Your task to perform on an android device: turn on showing notifications on the lock screen Image 0: 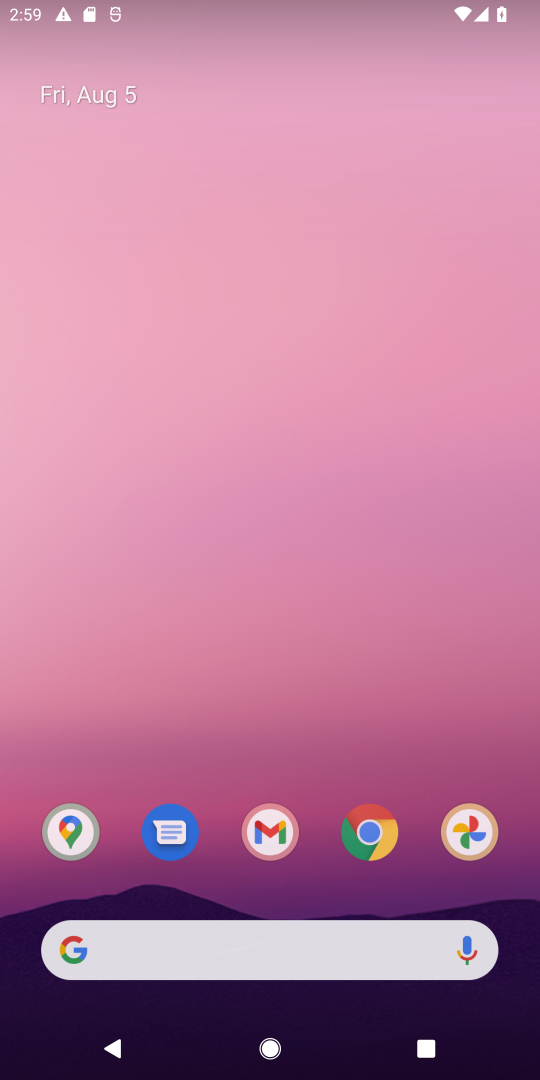
Step 0: press back button
Your task to perform on an android device: turn on showing notifications on the lock screen Image 1: 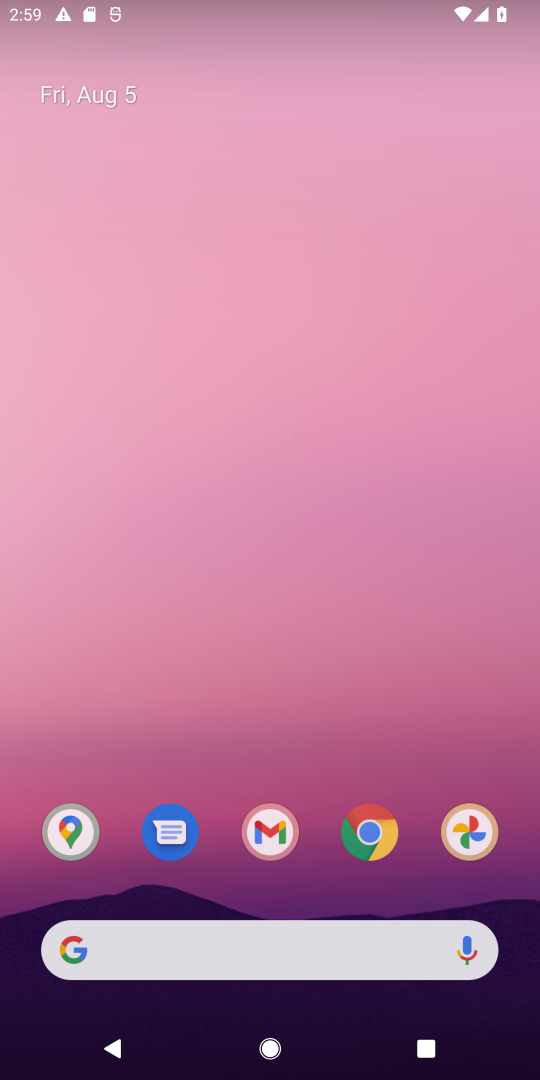
Step 1: press home button
Your task to perform on an android device: turn on showing notifications on the lock screen Image 2: 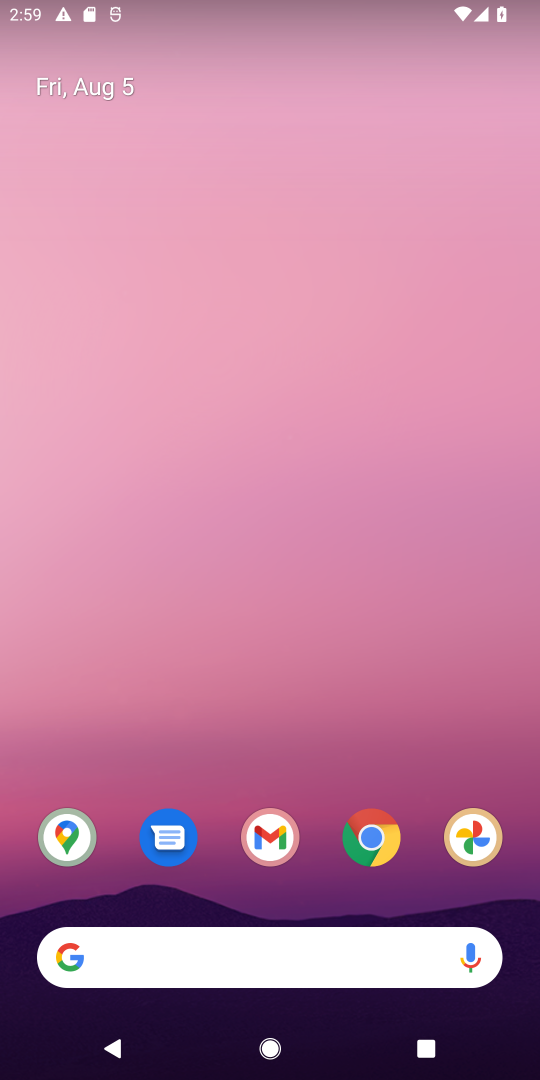
Step 2: click (349, 621)
Your task to perform on an android device: turn on showing notifications on the lock screen Image 3: 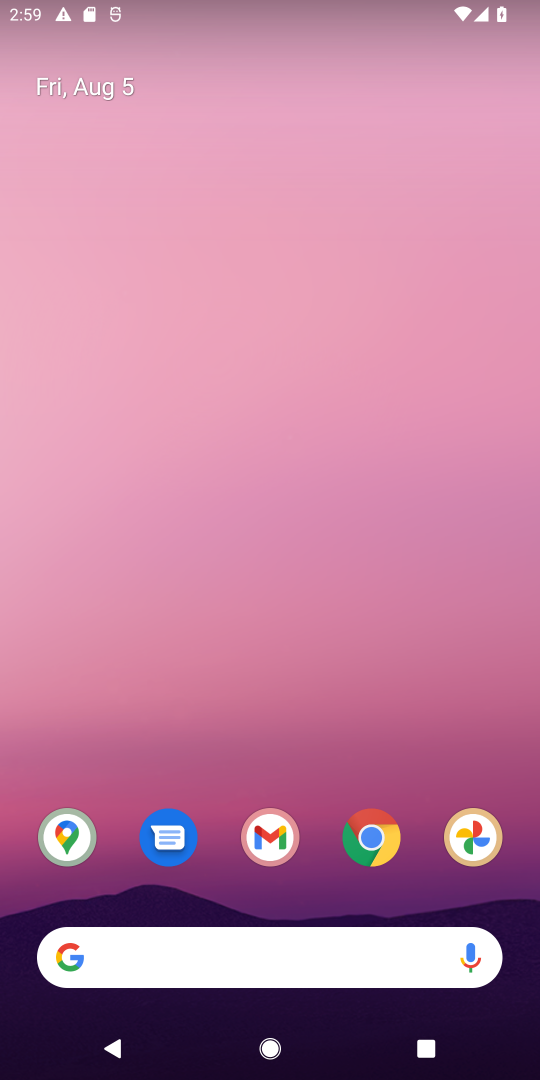
Step 3: drag from (291, 999) to (203, 275)
Your task to perform on an android device: turn on showing notifications on the lock screen Image 4: 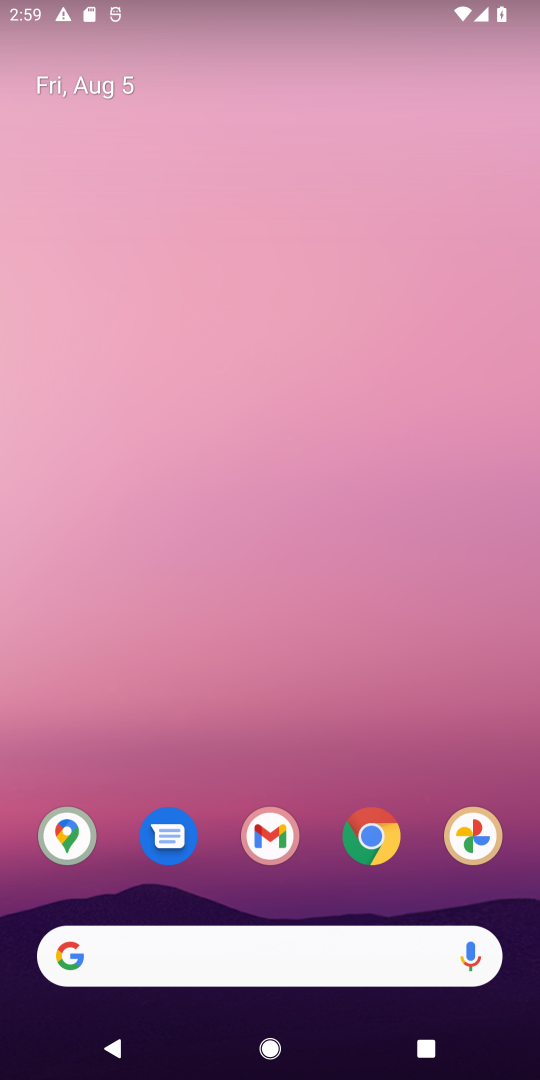
Step 4: drag from (269, 535) to (244, 383)
Your task to perform on an android device: turn on showing notifications on the lock screen Image 5: 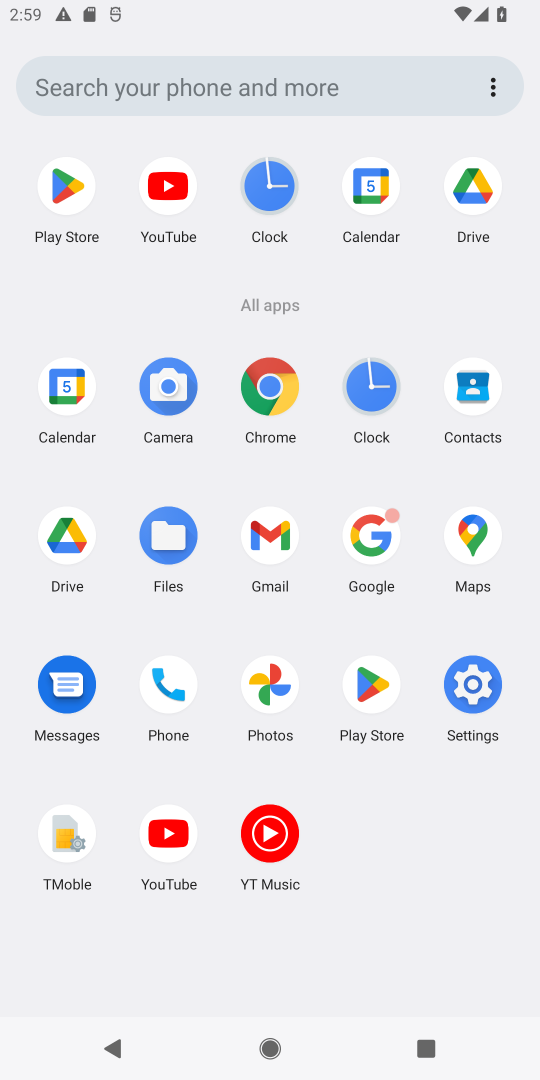
Step 5: click (467, 684)
Your task to perform on an android device: turn on showing notifications on the lock screen Image 6: 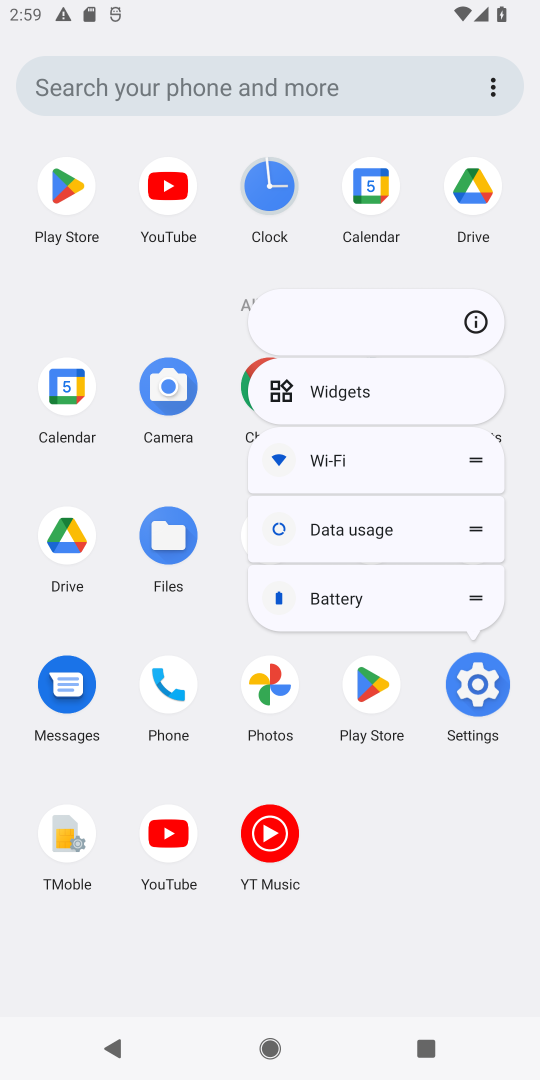
Step 6: click (473, 684)
Your task to perform on an android device: turn on showing notifications on the lock screen Image 7: 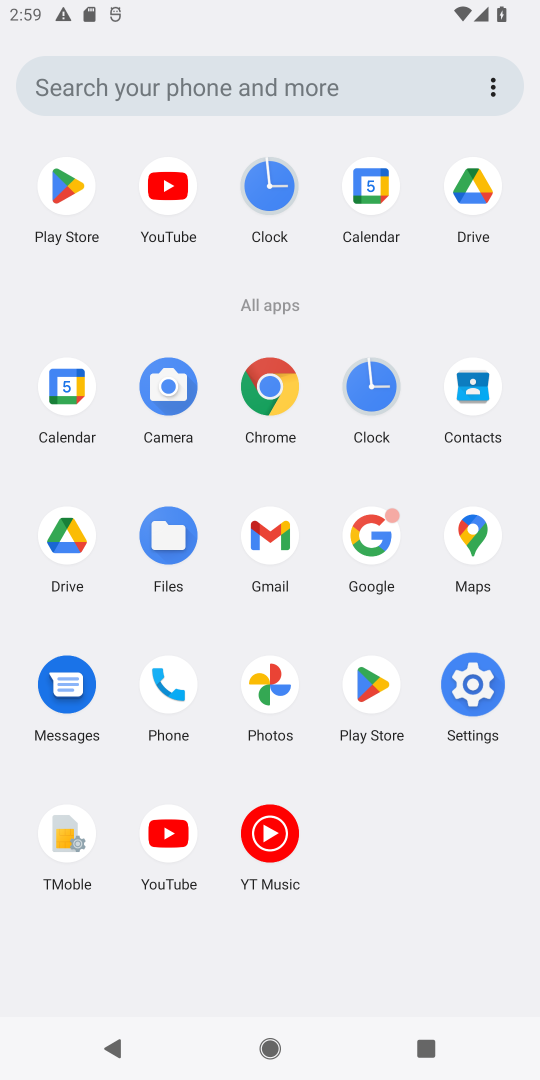
Step 7: click (470, 682)
Your task to perform on an android device: turn on showing notifications on the lock screen Image 8: 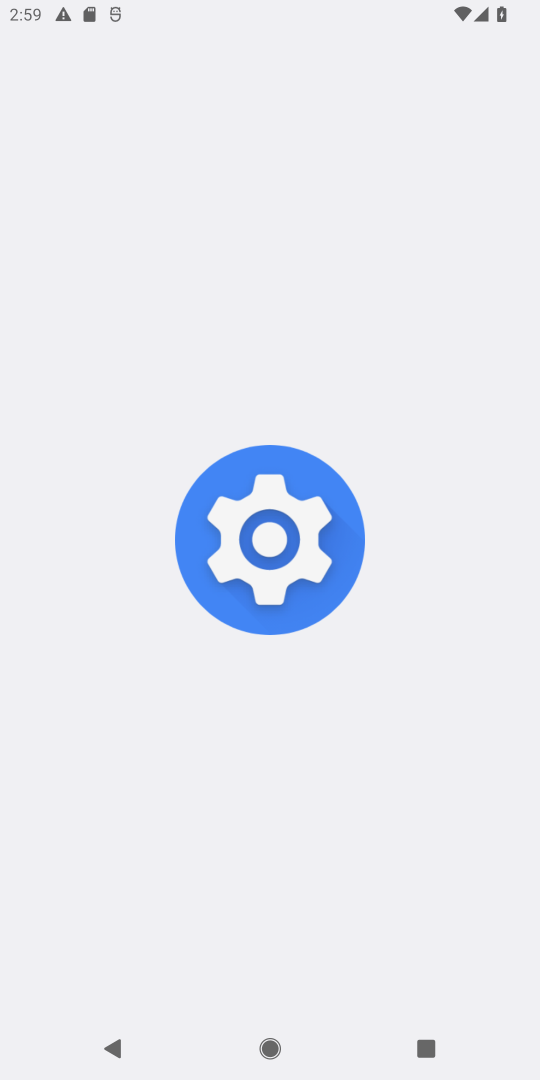
Step 8: click (455, 663)
Your task to perform on an android device: turn on showing notifications on the lock screen Image 9: 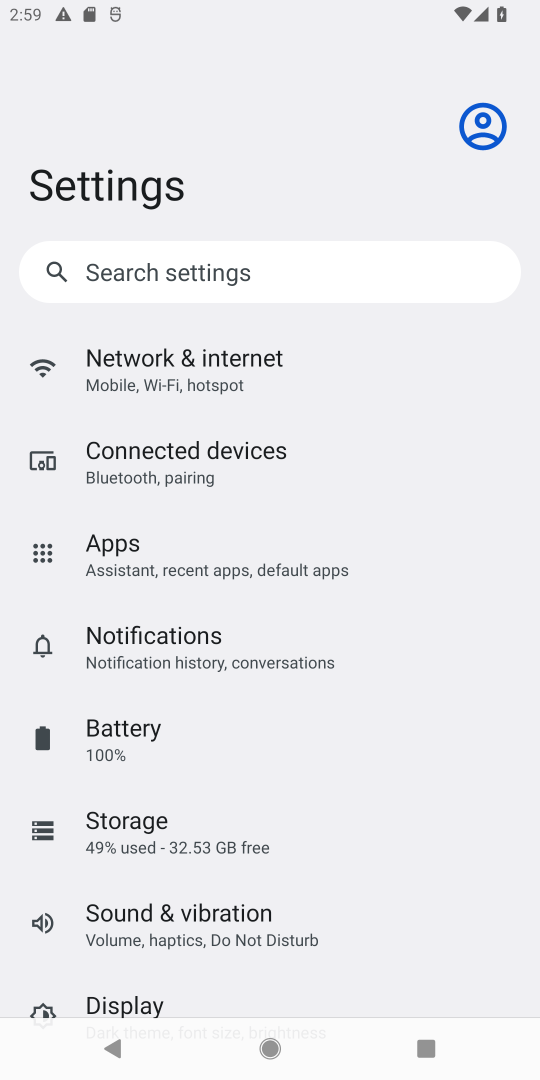
Step 9: drag from (231, 710) to (231, 324)
Your task to perform on an android device: turn on showing notifications on the lock screen Image 10: 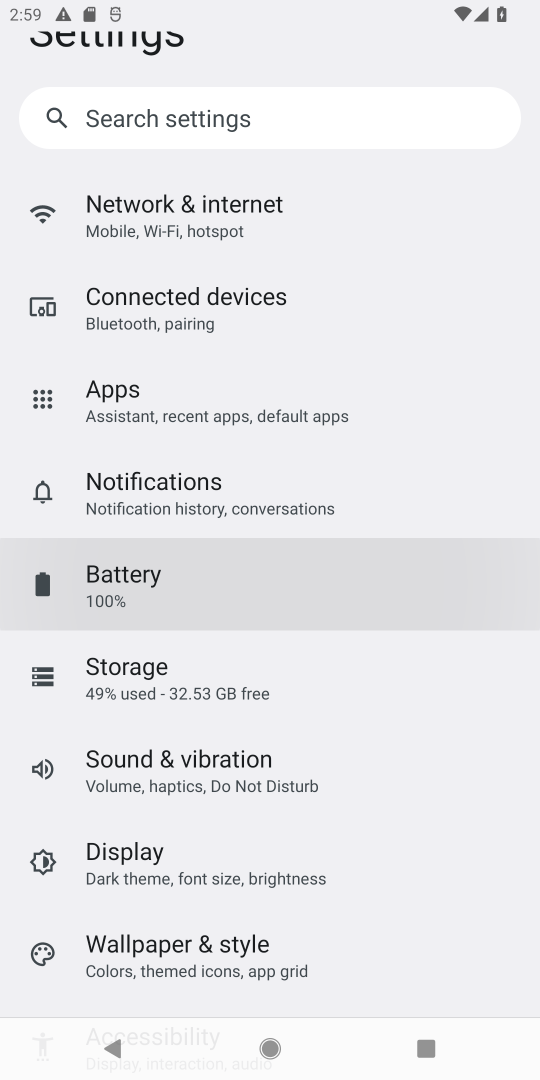
Step 10: drag from (279, 894) to (314, 282)
Your task to perform on an android device: turn on showing notifications on the lock screen Image 11: 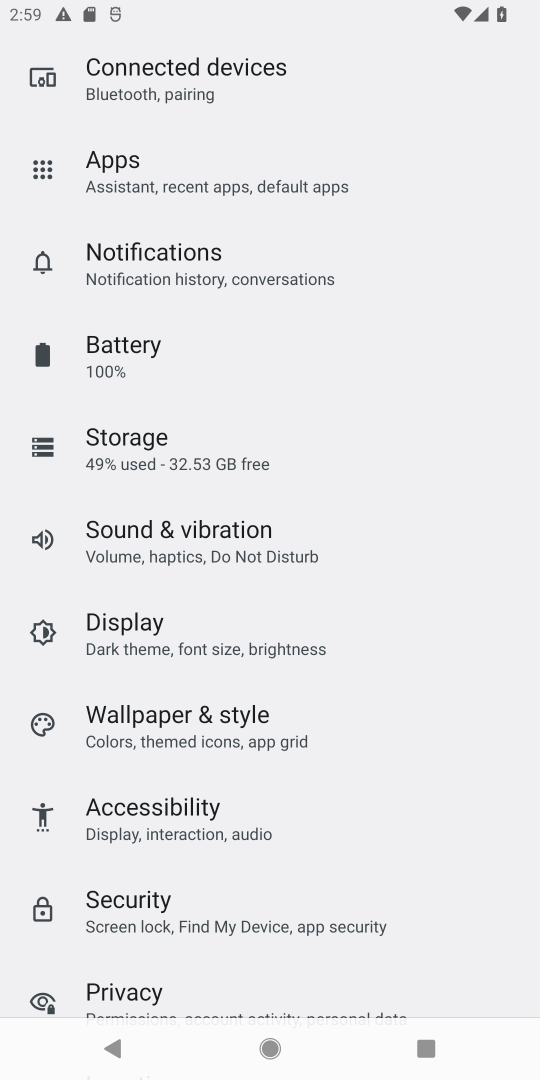
Step 11: drag from (180, 925) to (255, 357)
Your task to perform on an android device: turn on showing notifications on the lock screen Image 12: 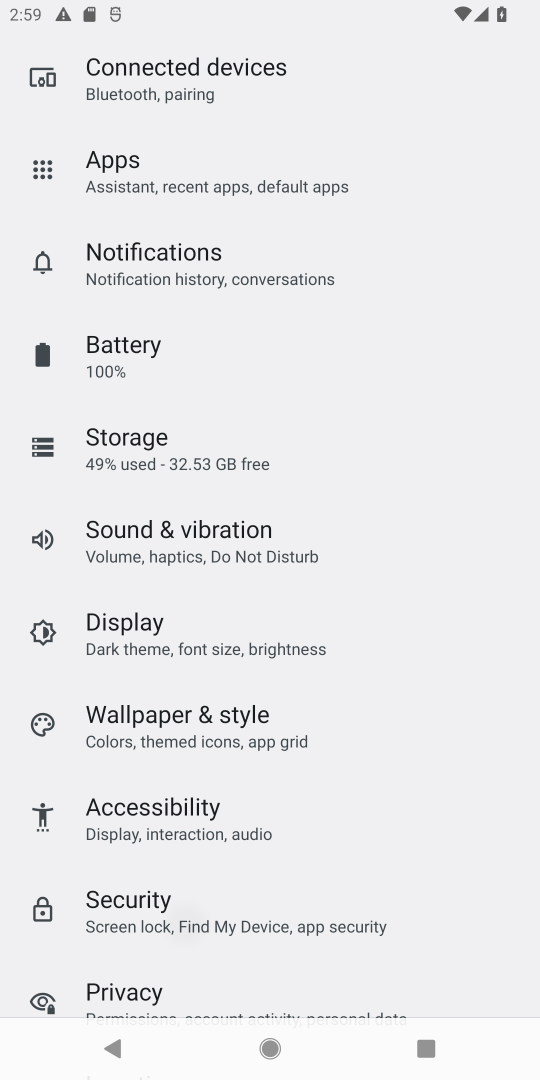
Step 12: drag from (293, 725) to (304, 318)
Your task to perform on an android device: turn on showing notifications on the lock screen Image 13: 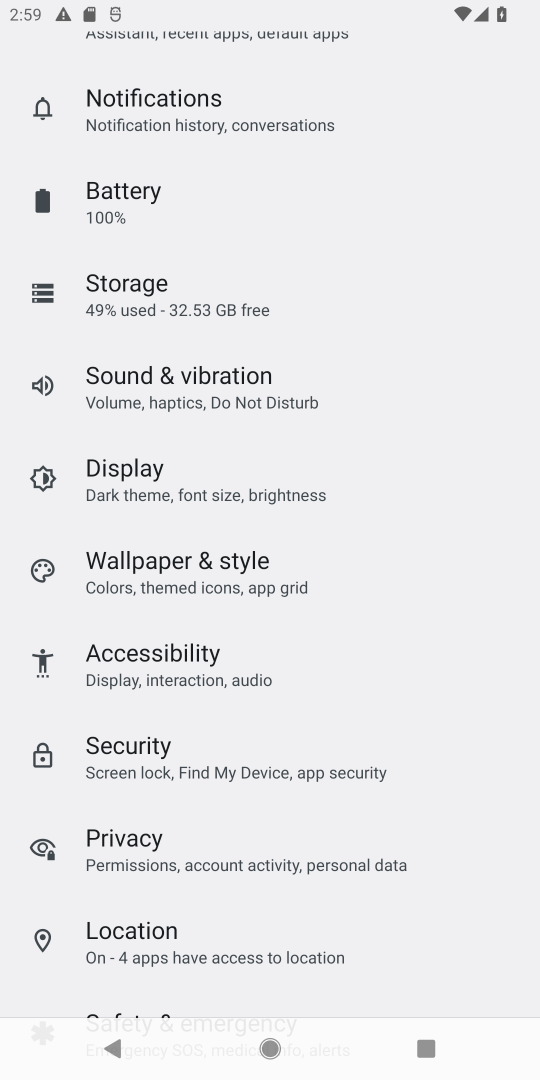
Step 13: click (158, 942)
Your task to perform on an android device: turn on showing notifications on the lock screen Image 14: 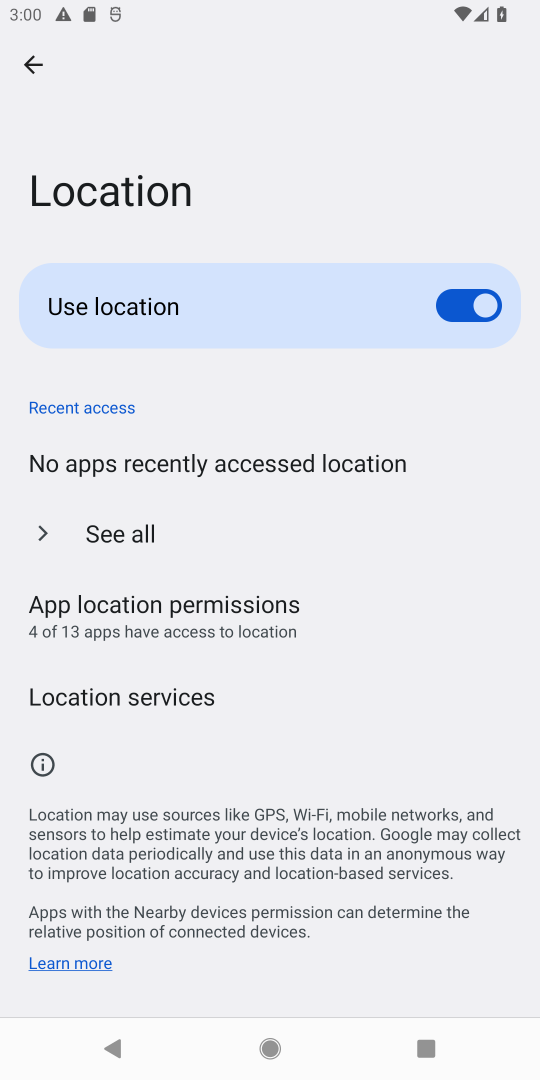
Step 14: drag from (240, 766) to (239, 207)
Your task to perform on an android device: turn on showing notifications on the lock screen Image 15: 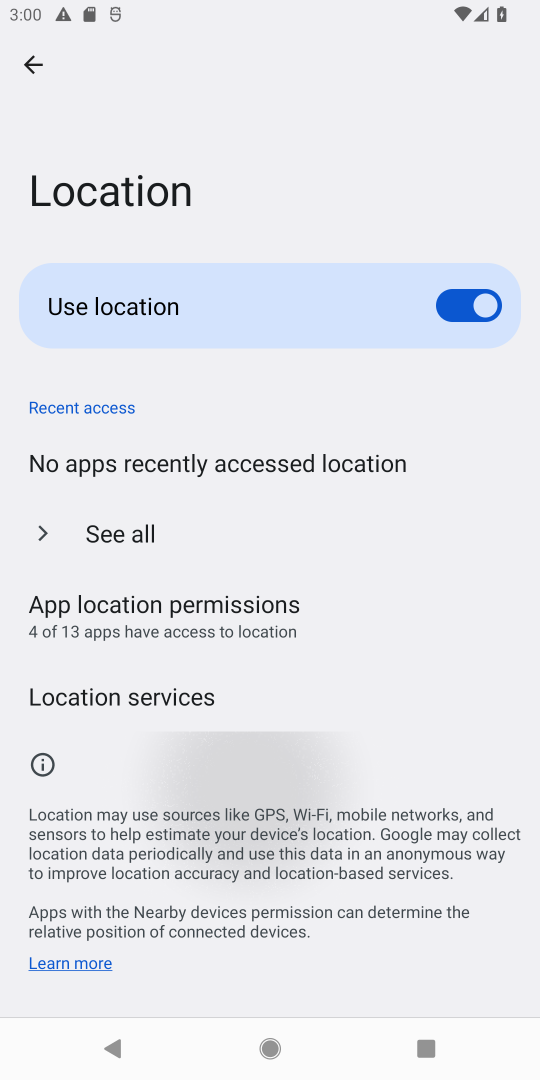
Step 15: drag from (254, 877) to (219, 465)
Your task to perform on an android device: turn on showing notifications on the lock screen Image 16: 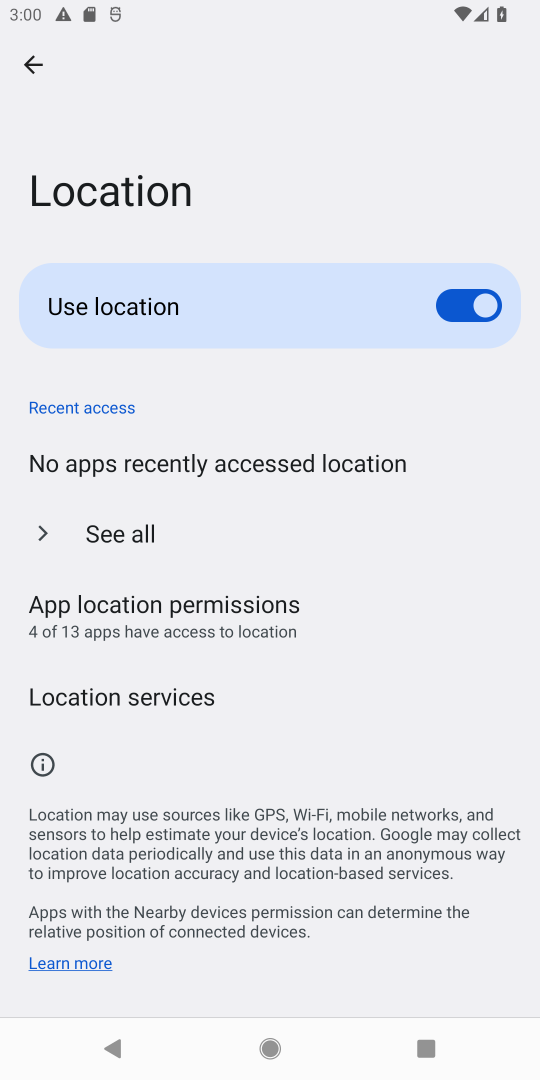
Step 16: drag from (177, 737) to (175, 345)
Your task to perform on an android device: turn on showing notifications on the lock screen Image 17: 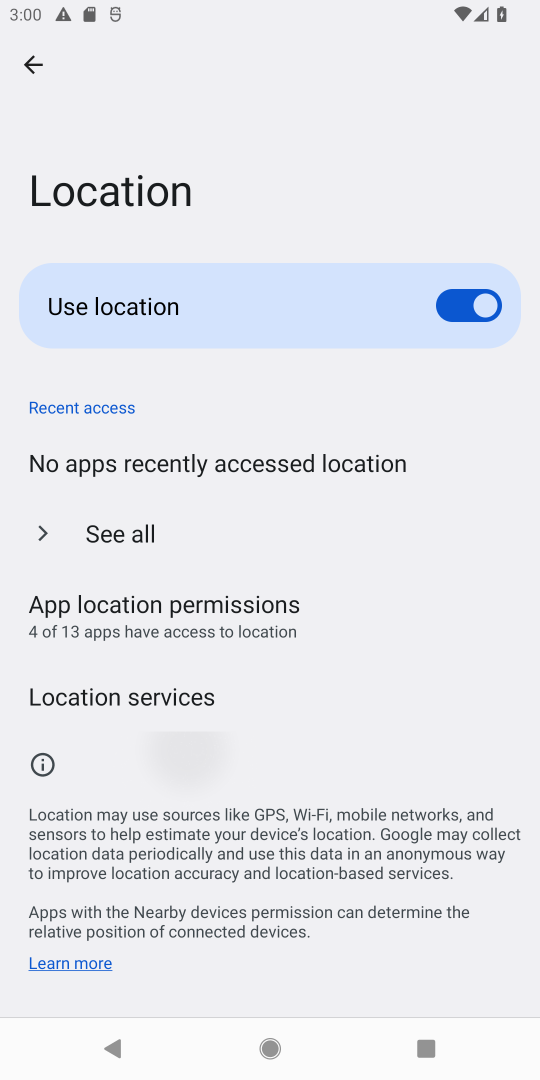
Step 17: drag from (179, 859) to (197, 587)
Your task to perform on an android device: turn on showing notifications on the lock screen Image 18: 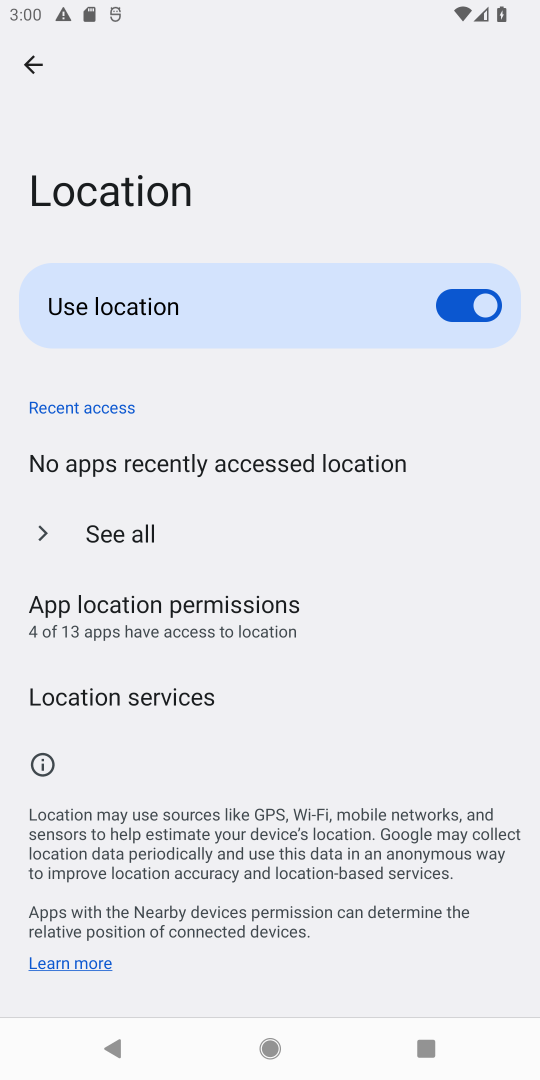
Step 18: drag from (158, 751) to (154, 298)
Your task to perform on an android device: turn on showing notifications on the lock screen Image 19: 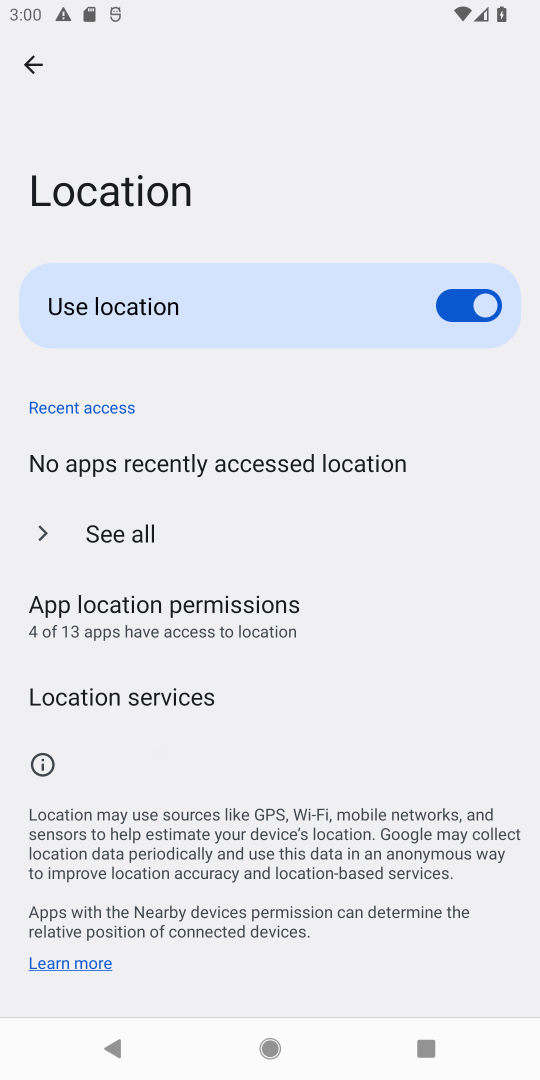
Step 19: drag from (169, 968) to (169, 392)
Your task to perform on an android device: turn on showing notifications on the lock screen Image 20: 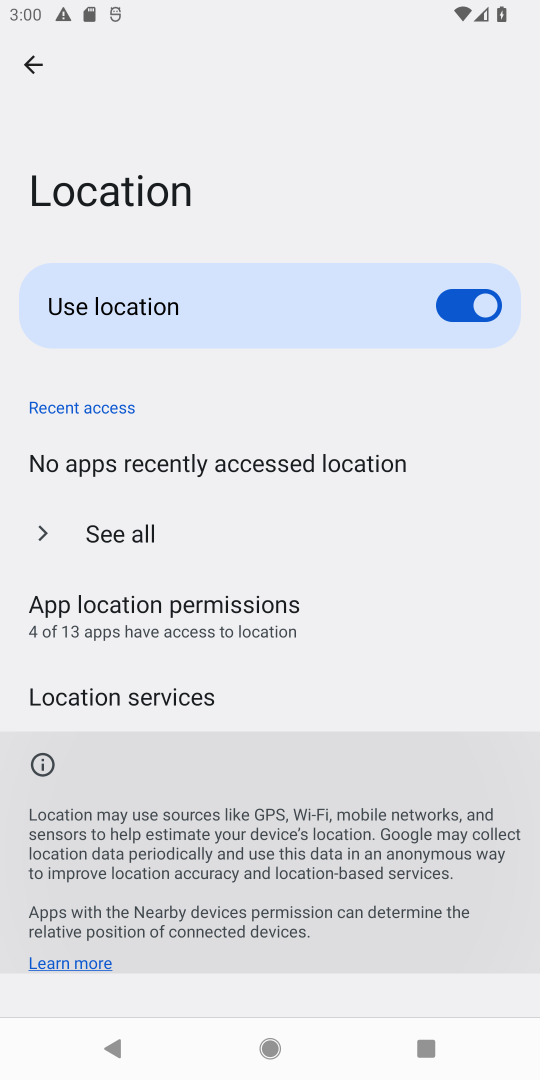
Step 20: drag from (289, 504) to (328, 310)
Your task to perform on an android device: turn on showing notifications on the lock screen Image 21: 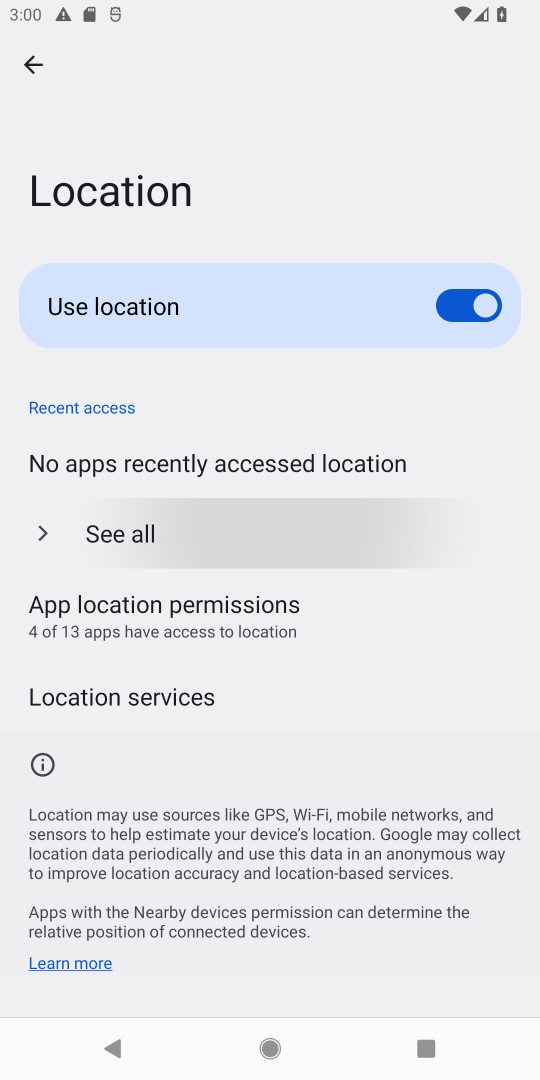
Step 21: drag from (227, 679) to (225, 334)
Your task to perform on an android device: turn on showing notifications on the lock screen Image 22: 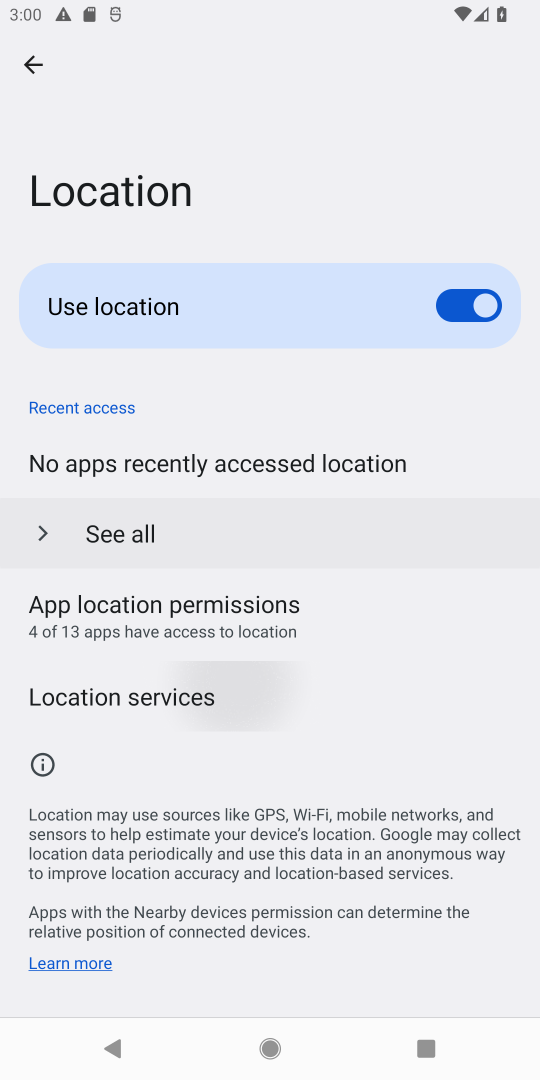
Step 22: drag from (272, 734) to (338, 242)
Your task to perform on an android device: turn on showing notifications on the lock screen Image 23: 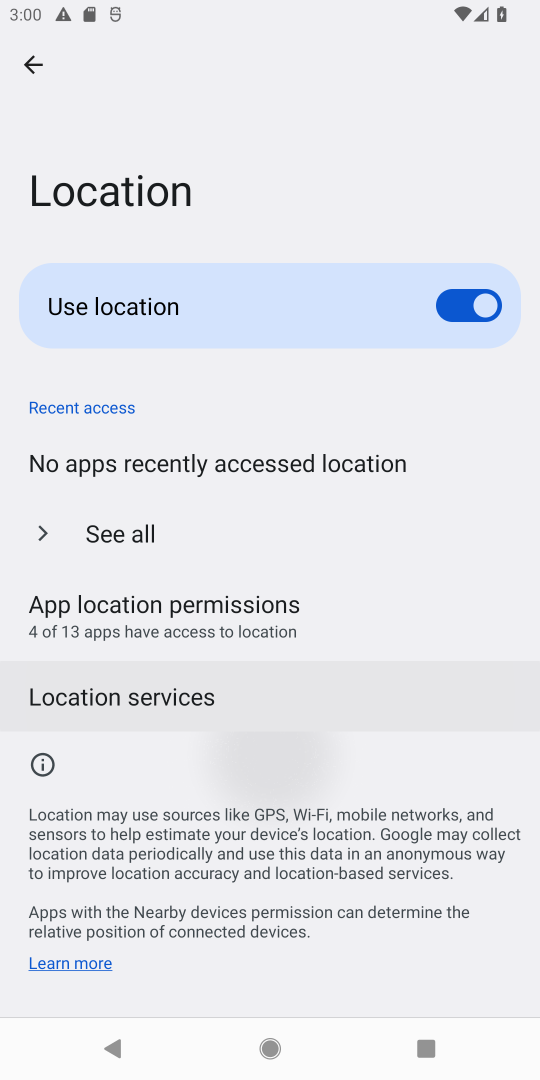
Step 23: drag from (188, 546) to (184, 308)
Your task to perform on an android device: turn on showing notifications on the lock screen Image 24: 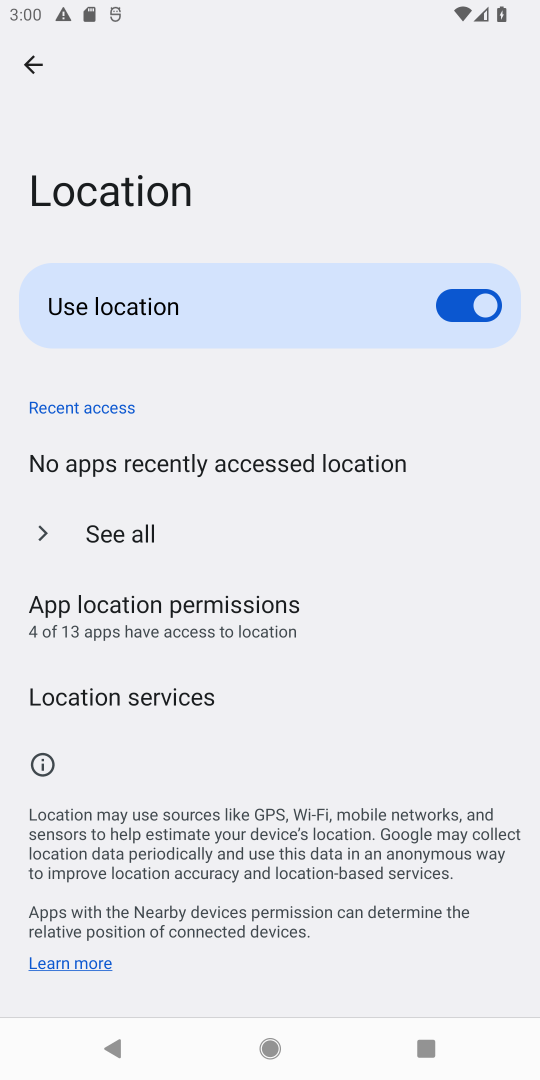
Step 24: drag from (263, 768) to (212, 294)
Your task to perform on an android device: turn on showing notifications on the lock screen Image 25: 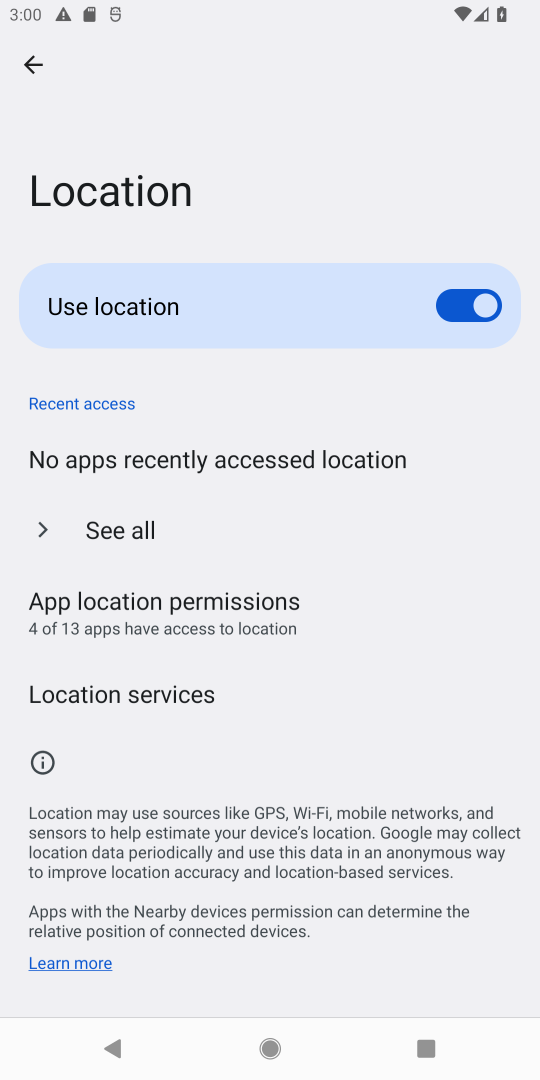
Step 25: click (245, 158)
Your task to perform on an android device: turn on showing notifications on the lock screen Image 26: 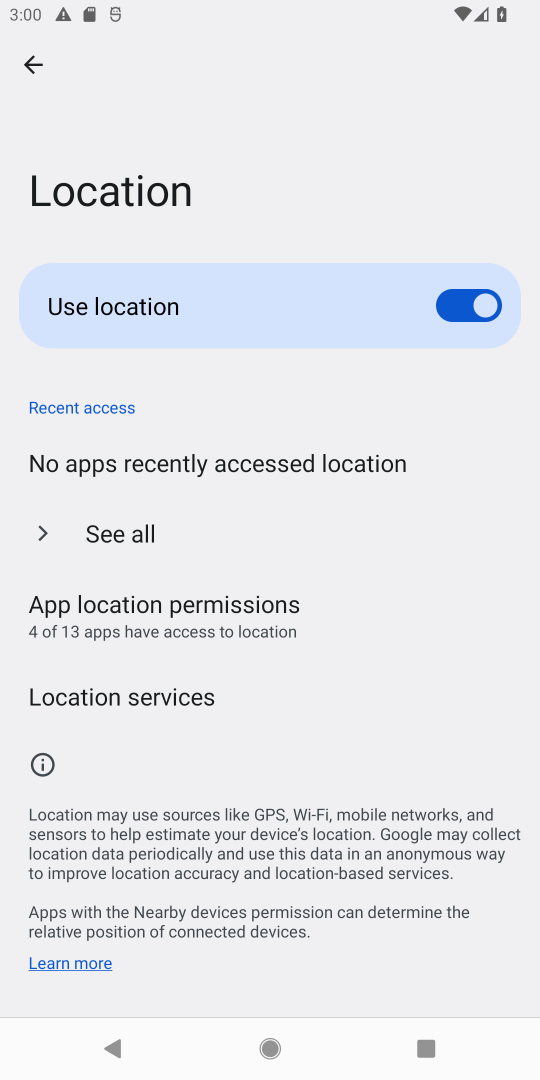
Step 26: task complete